Your task to perform on an android device: clear all cookies in the chrome app Image 0: 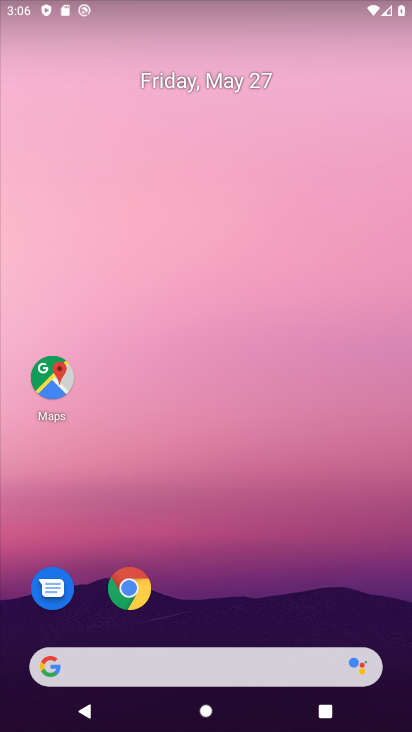
Step 0: click (134, 612)
Your task to perform on an android device: clear all cookies in the chrome app Image 1: 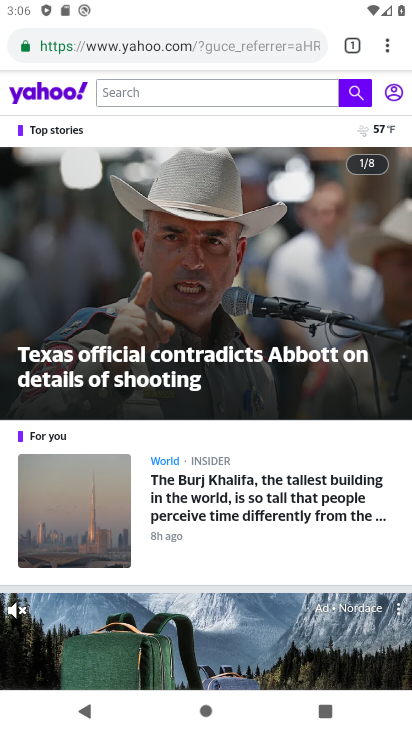
Step 1: click (396, 42)
Your task to perform on an android device: clear all cookies in the chrome app Image 2: 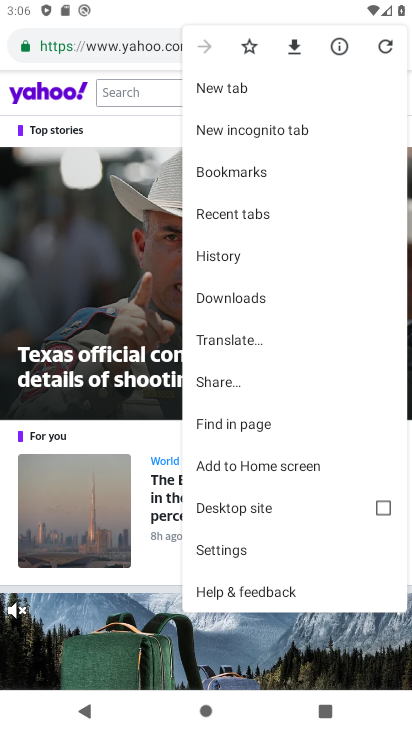
Step 2: click (222, 552)
Your task to perform on an android device: clear all cookies in the chrome app Image 3: 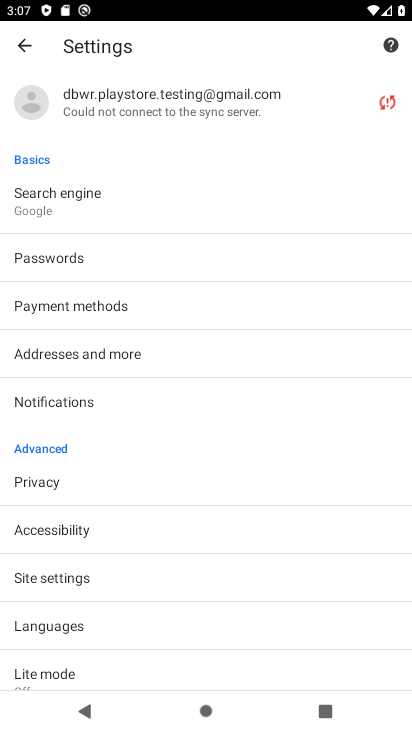
Step 3: click (119, 471)
Your task to perform on an android device: clear all cookies in the chrome app Image 4: 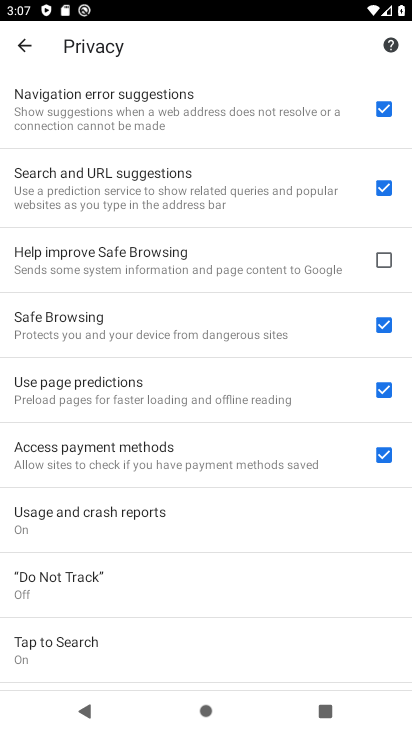
Step 4: drag from (272, 549) to (244, 340)
Your task to perform on an android device: clear all cookies in the chrome app Image 5: 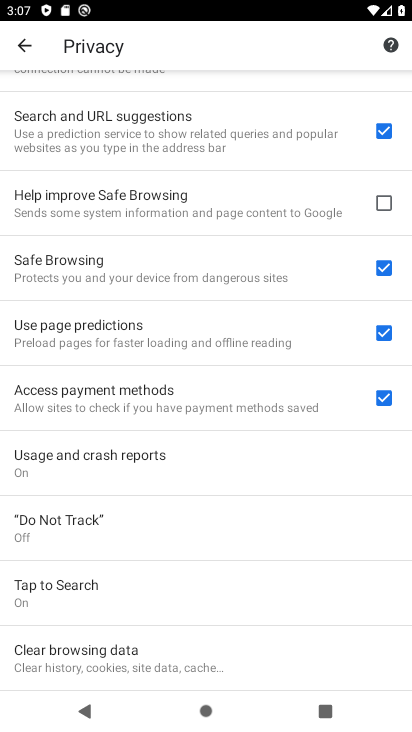
Step 5: click (270, 661)
Your task to perform on an android device: clear all cookies in the chrome app Image 6: 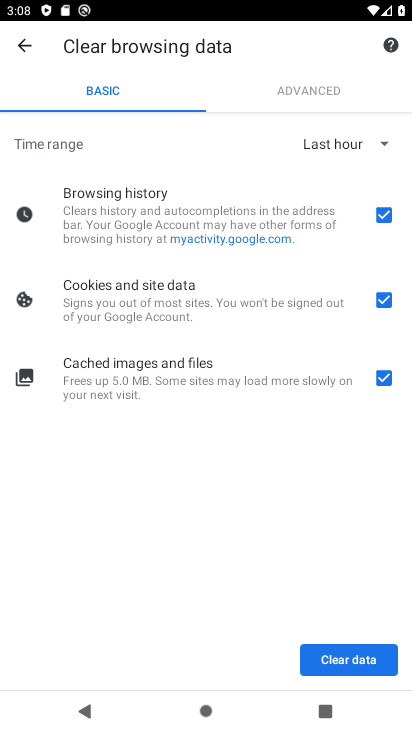
Step 6: click (365, 145)
Your task to perform on an android device: clear all cookies in the chrome app Image 7: 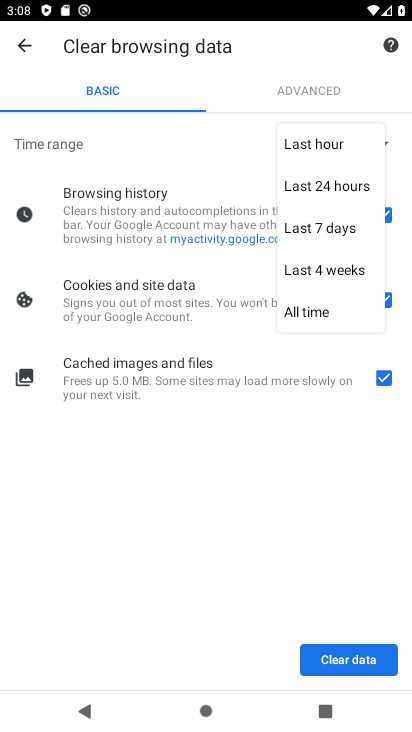
Step 7: click (335, 304)
Your task to perform on an android device: clear all cookies in the chrome app Image 8: 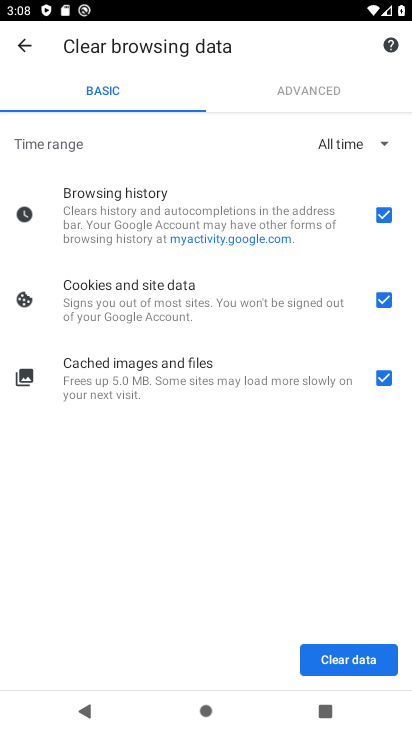
Step 8: click (318, 305)
Your task to perform on an android device: clear all cookies in the chrome app Image 9: 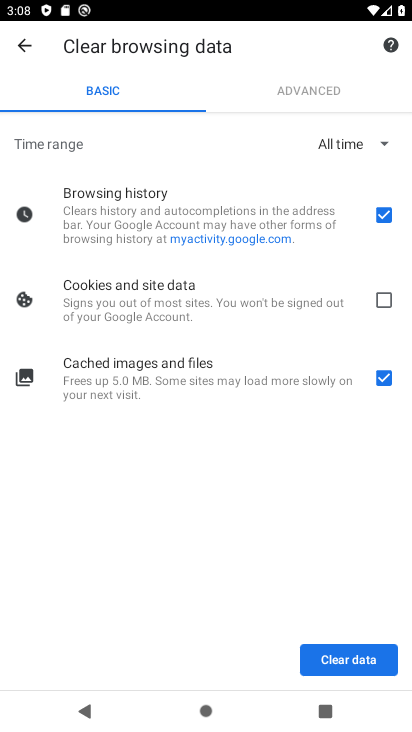
Step 9: click (318, 305)
Your task to perform on an android device: clear all cookies in the chrome app Image 10: 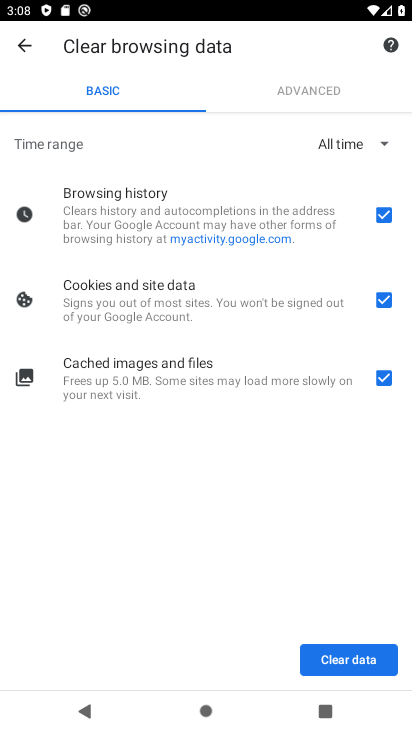
Step 10: click (355, 229)
Your task to perform on an android device: clear all cookies in the chrome app Image 11: 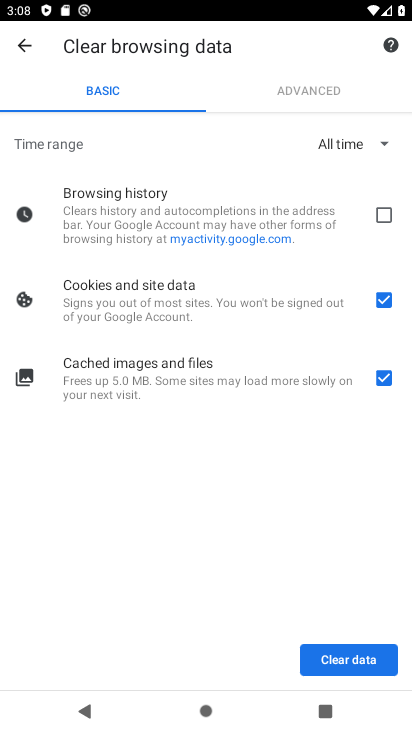
Step 11: click (277, 375)
Your task to perform on an android device: clear all cookies in the chrome app Image 12: 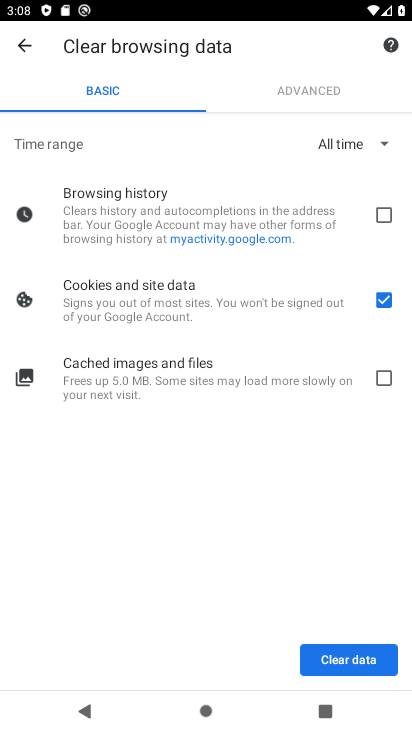
Step 12: click (328, 671)
Your task to perform on an android device: clear all cookies in the chrome app Image 13: 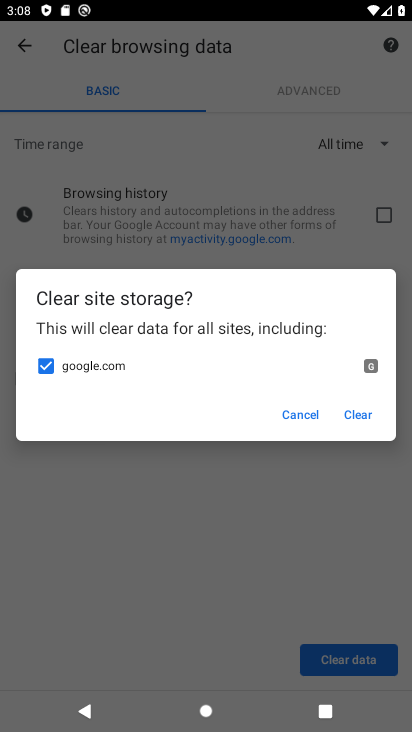
Step 13: click (374, 412)
Your task to perform on an android device: clear all cookies in the chrome app Image 14: 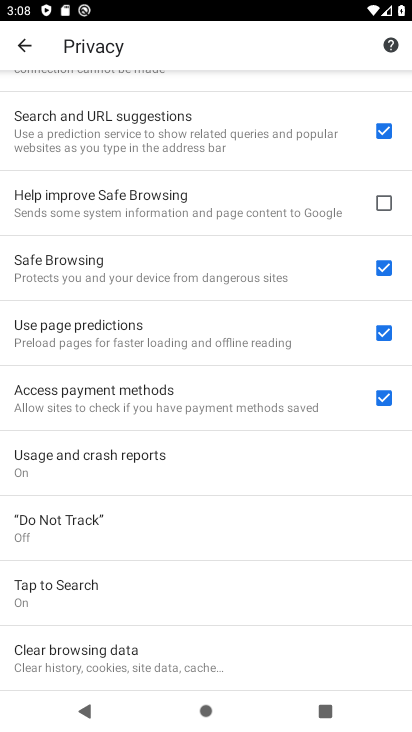
Step 14: task complete